Your task to perform on an android device: Open CNN.com Image 0: 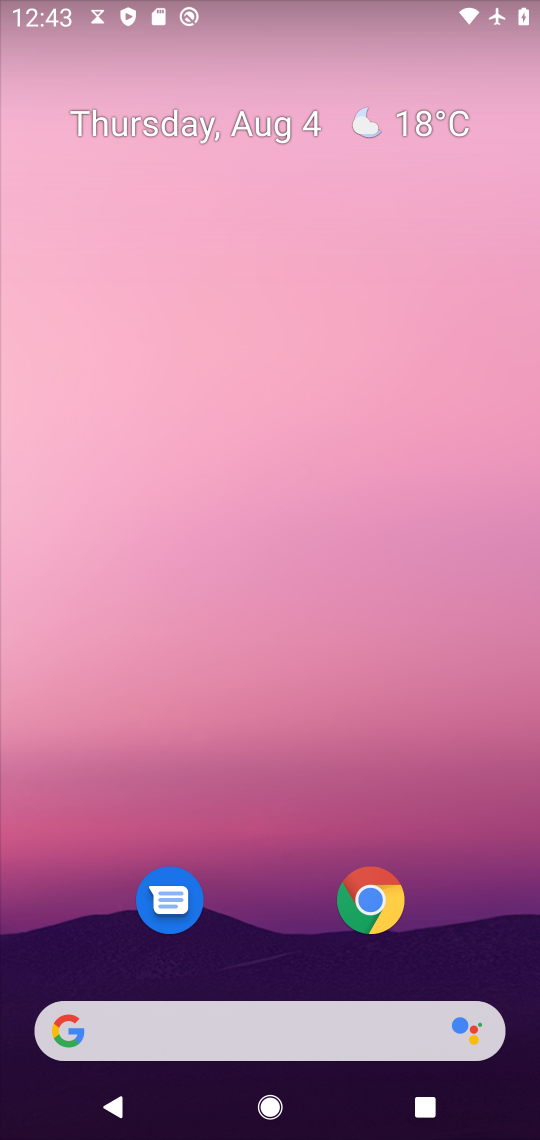
Step 0: press home button
Your task to perform on an android device: Open CNN.com Image 1: 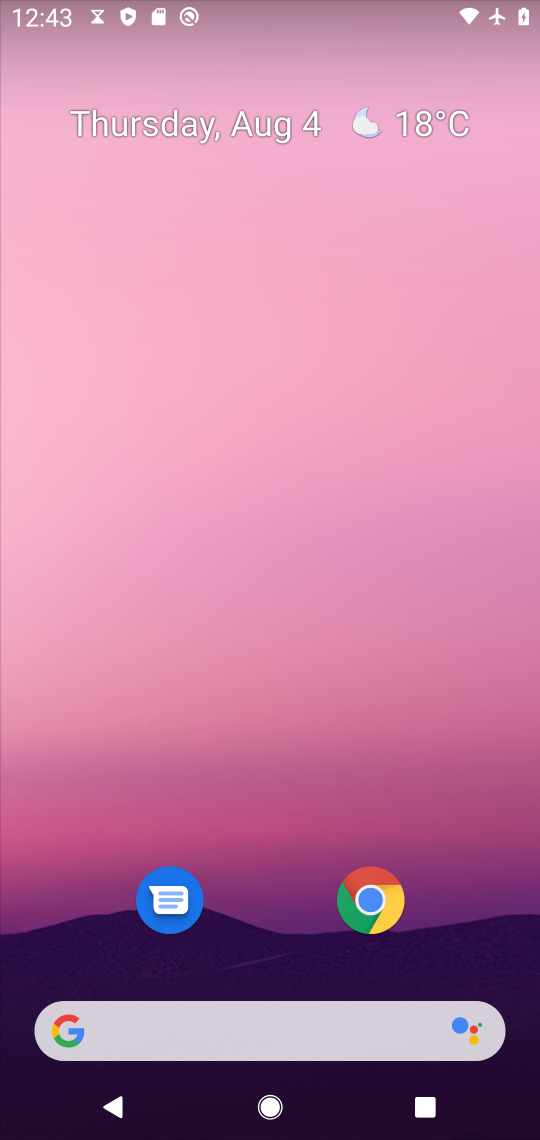
Step 1: click (68, 1030)
Your task to perform on an android device: Open CNN.com Image 2: 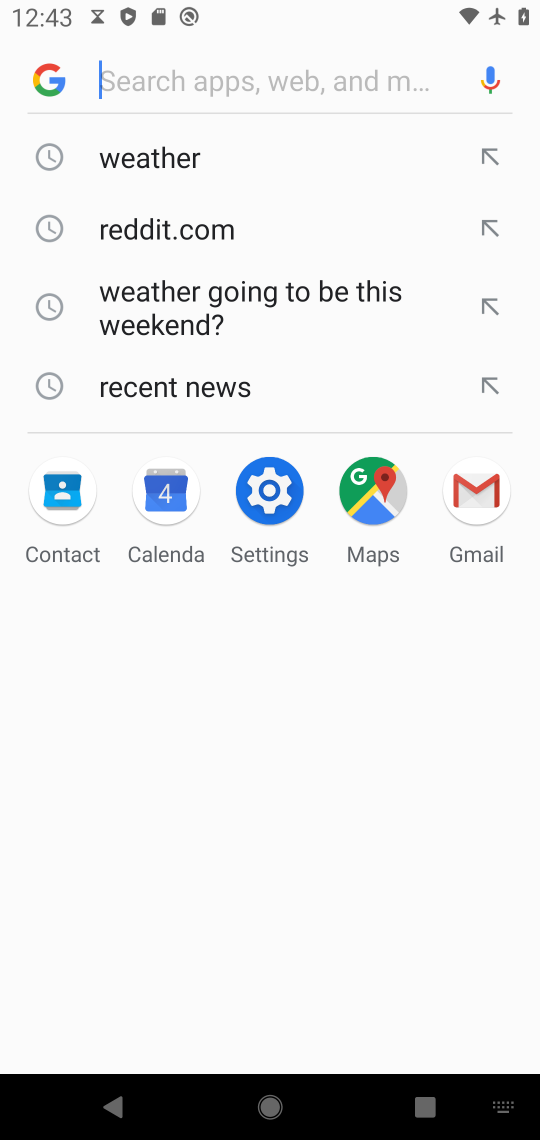
Step 2: type "CNN.com"
Your task to perform on an android device: Open CNN.com Image 3: 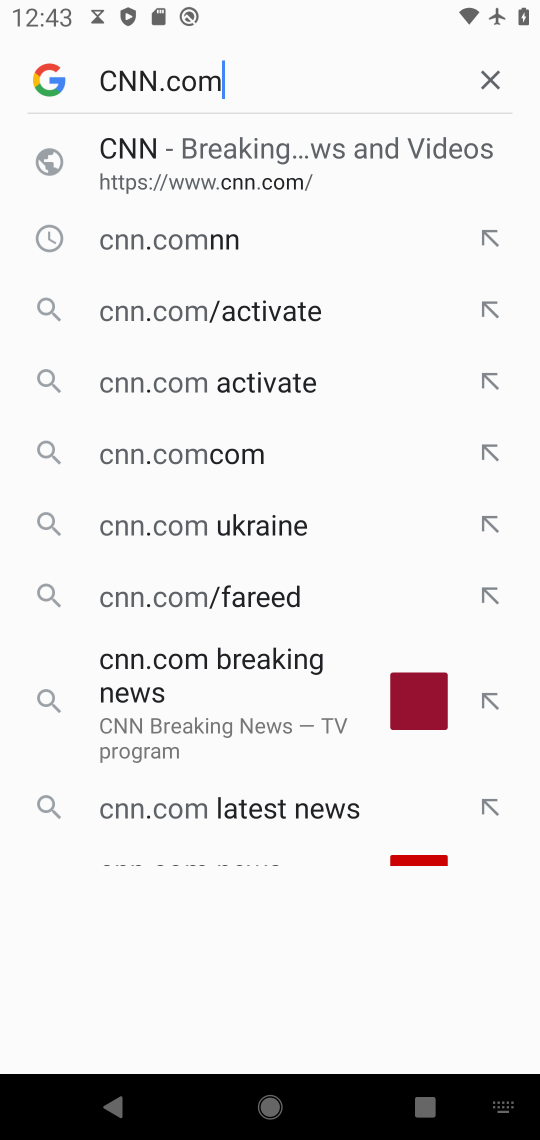
Step 3: press enter
Your task to perform on an android device: Open CNN.com Image 4: 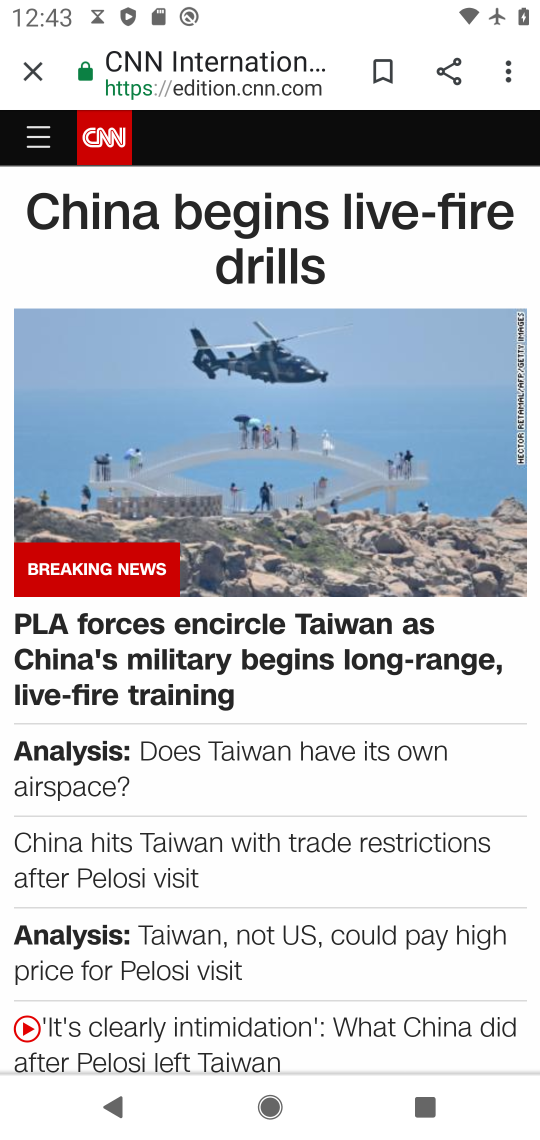
Step 4: task complete